Your task to perform on an android device: remove spam from my inbox in the gmail app Image 0: 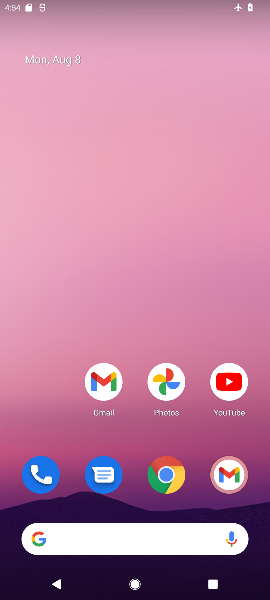
Step 0: drag from (55, 418) to (83, 115)
Your task to perform on an android device: remove spam from my inbox in the gmail app Image 1: 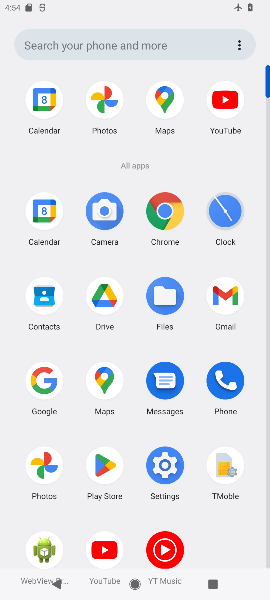
Step 1: click (218, 302)
Your task to perform on an android device: remove spam from my inbox in the gmail app Image 2: 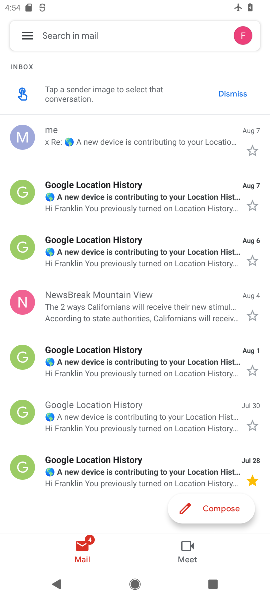
Step 2: click (30, 39)
Your task to perform on an android device: remove spam from my inbox in the gmail app Image 3: 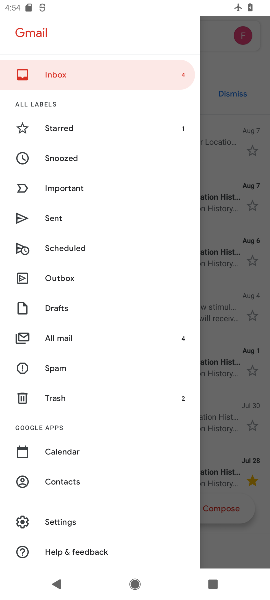
Step 3: drag from (130, 386) to (131, 308)
Your task to perform on an android device: remove spam from my inbox in the gmail app Image 4: 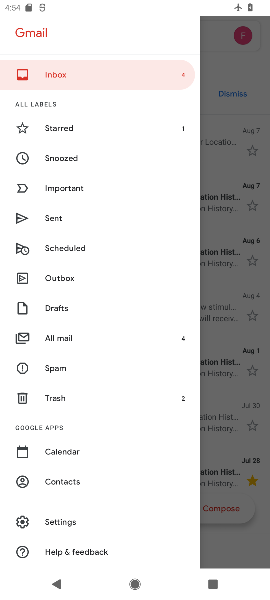
Step 4: click (104, 364)
Your task to perform on an android device: remove spam from my inbox in the gmail app Image 5: 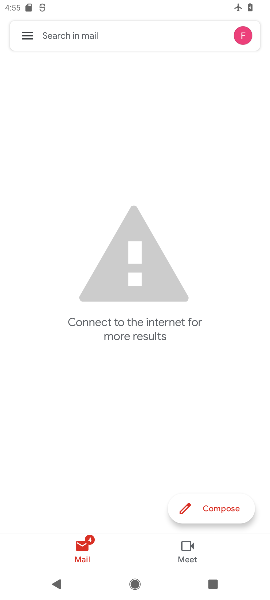
Step 5: click (28, 33)
Your task to perform on an android device: remove spam from my inbox in the gmail app Image 6: 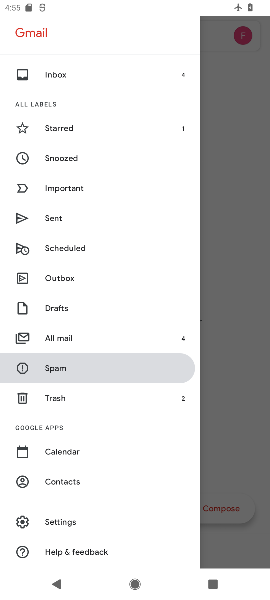
Step 6: click (91, 372)
Your task to perform on an android device: remove spam from my inbox in the gmail app Image 7: 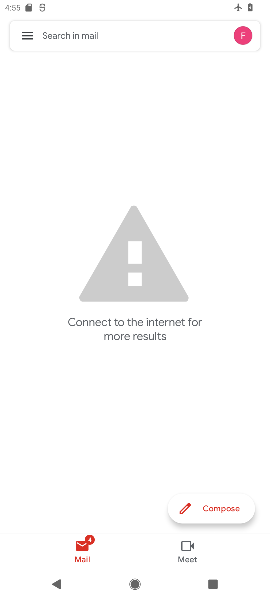
Step 7: task complete